Your task to perform on an android device: turn on sleep mode Image 0: 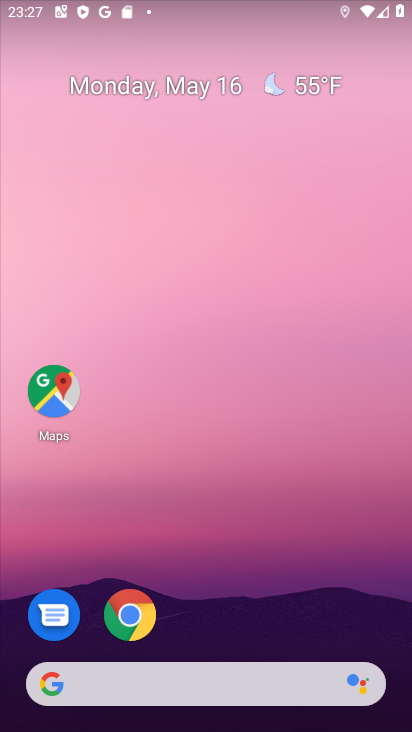
Step 0: drag from (226, 639) to (189, 73)
Your task to perform on an android device: turn on sleep mode Image 1: 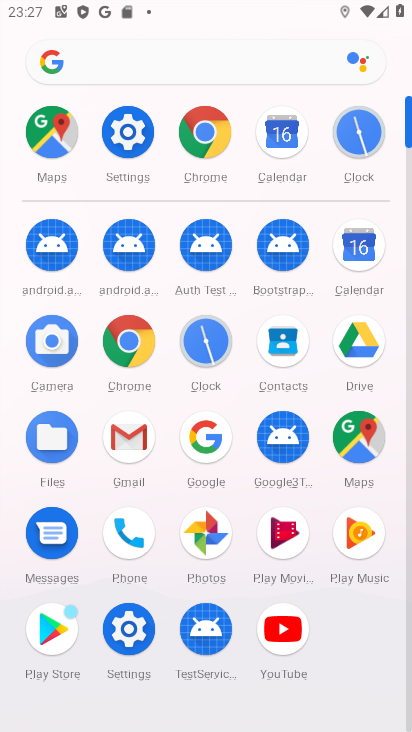
Step 1: click (137, 132)
Your task to perform on an android device: turn on sleep mode Image 2: 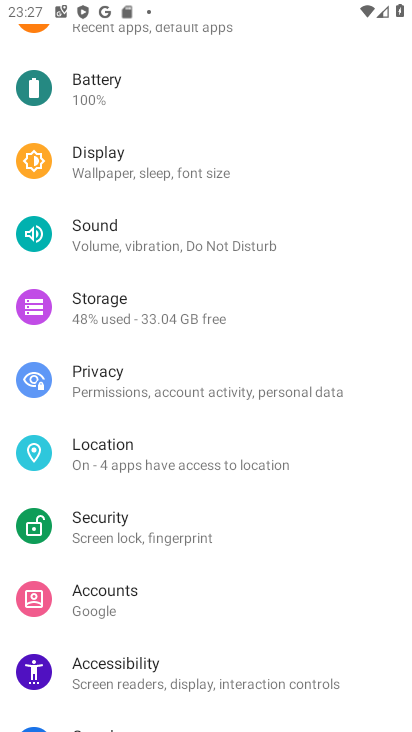
Step 2: click (122, 174)
Your task to perform on an android device: turn on sleep mode Image 3: 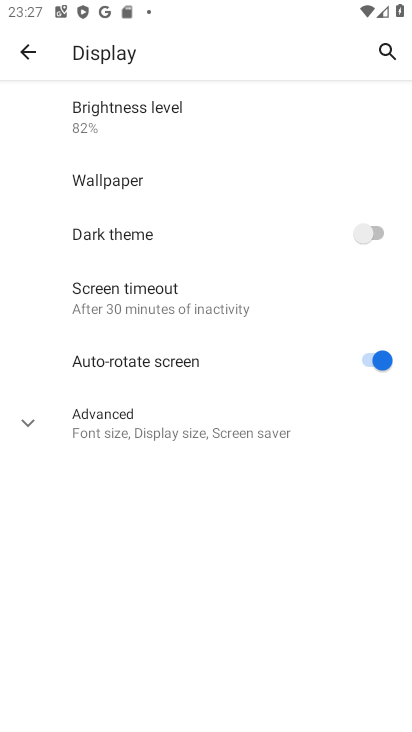
Step 3: task complete